Your task to perform on an android device: Open settings on Google Maps Image 0: 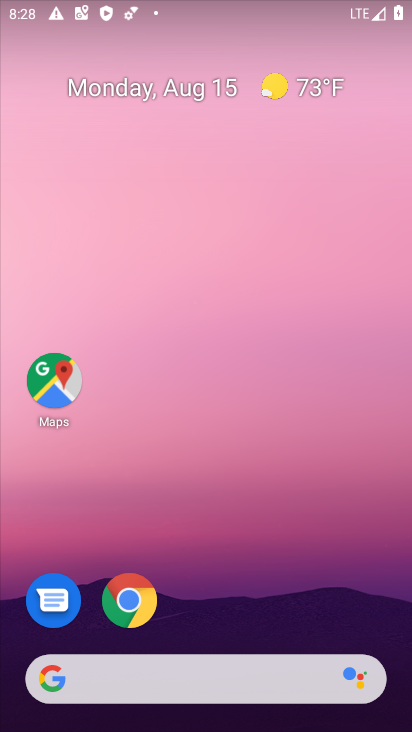
Step 0: drag from (215, 645) to (231, 13)
Your task to perform on an android device: Open settings on Google Maps Image 1: 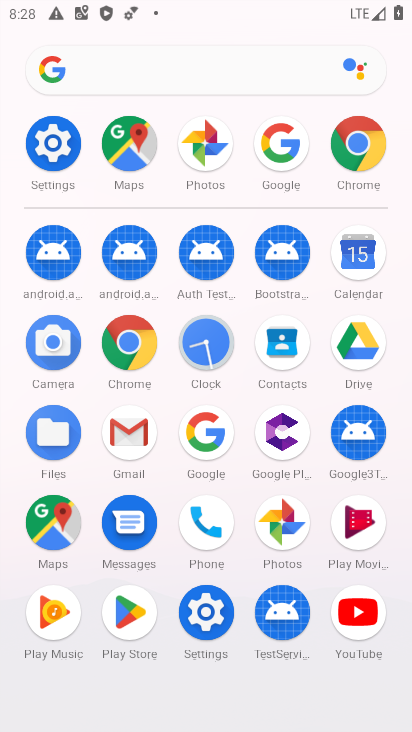
Step 1: click (58, 523)
Your task to perform on an android device: Open settings on Google Maps Image 2: 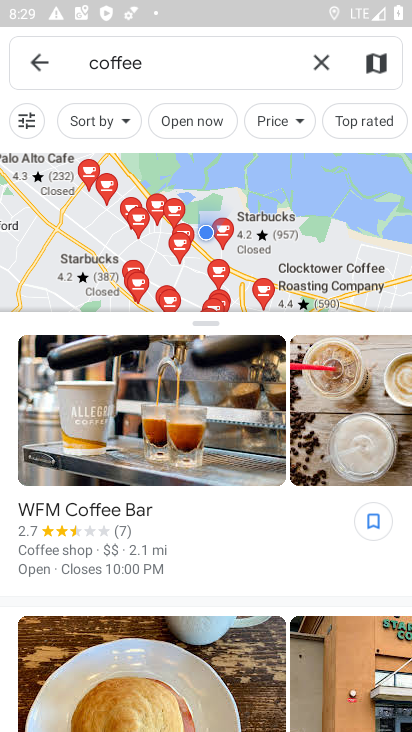
Step 2: click (36, 60)
Your task to perform on an android device: Open settings on Google Maps Image 3: 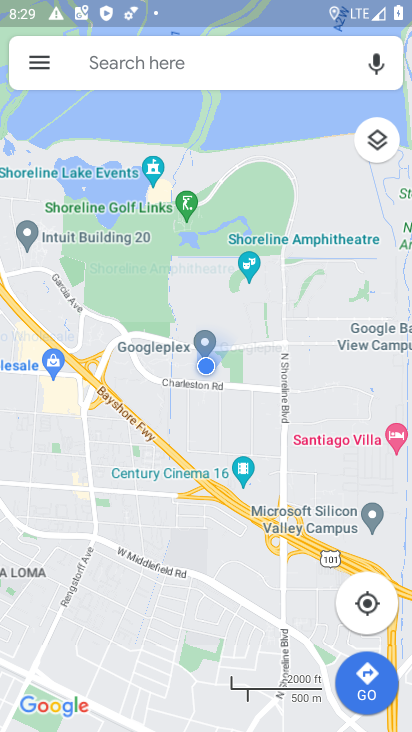
Step 3: click (40, 62)
Your task to perform on an android device: Open settings on Google Maps Image 4: 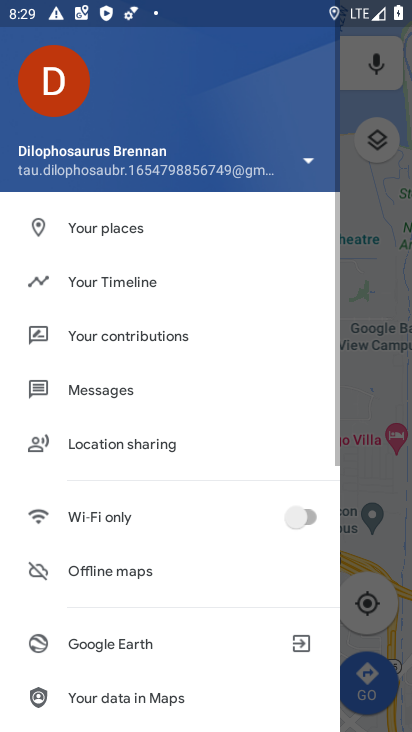
Step 4: drag from (80, 638) to (106, 266)
Your task to perform on an android device: Open settings on Google Maps Image 5: 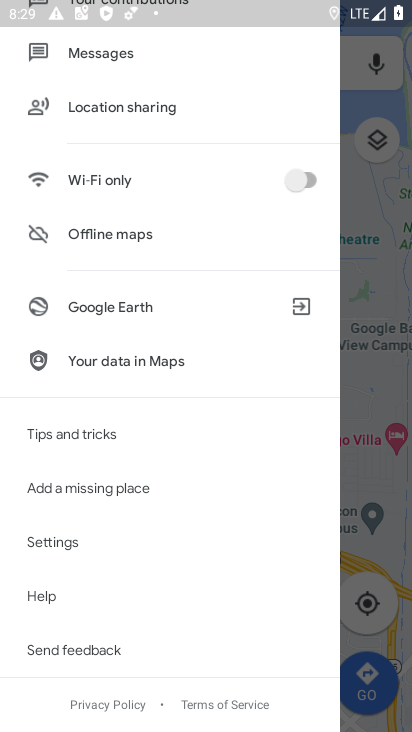
Step 5: click (56, 541)
Your task to perform on an android device: Open settings on Google Maps Image 6: 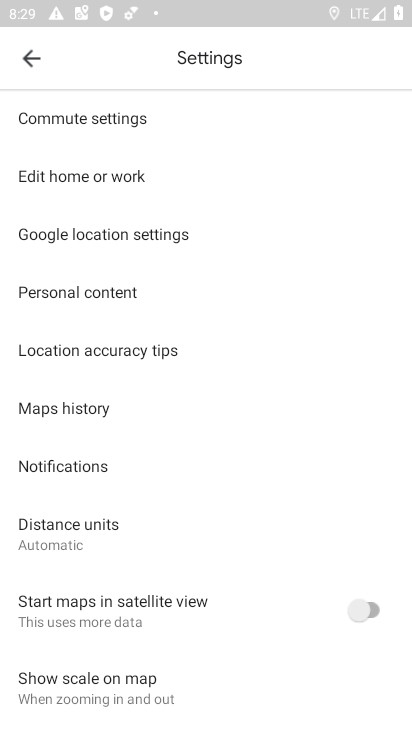
Step 6: task complete